Your task to perform on an android device: Go to CNN.com Image 0: 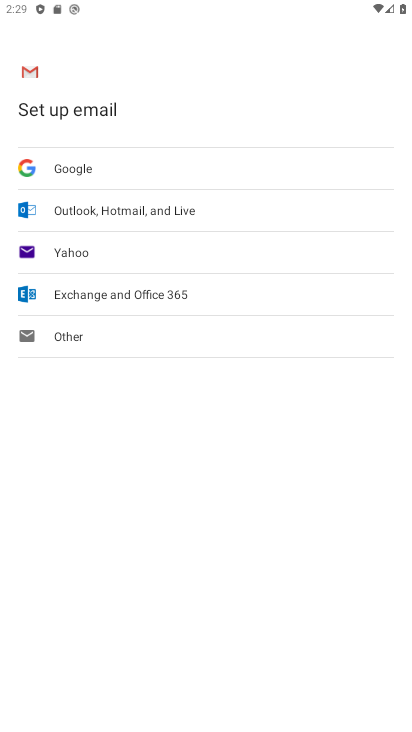
Step 0: press home button
Your task to perform on an android device: Go to CNN.com Image 1: 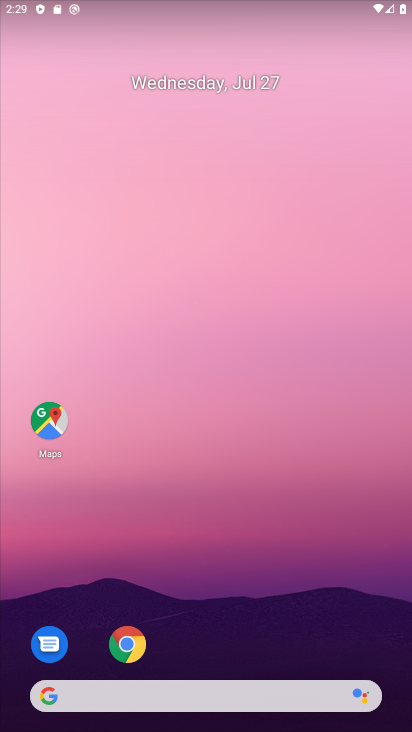
Step 1: click (125, 635)
Your task to perform on an android device: Go to CNN.com Image 2: 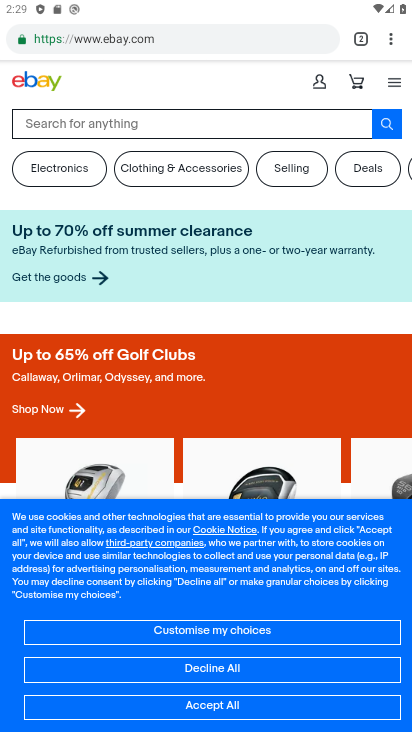
Step 2: click (170, 37)
Your task to perform on an android device: Go to CNN.com Image 3: 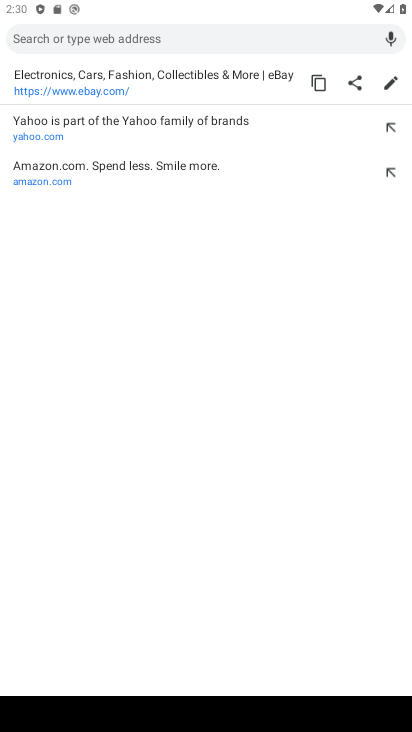
Step 3: type "CNN.com"
Your task to perform on an android device: Go to CNN.com Image 4: 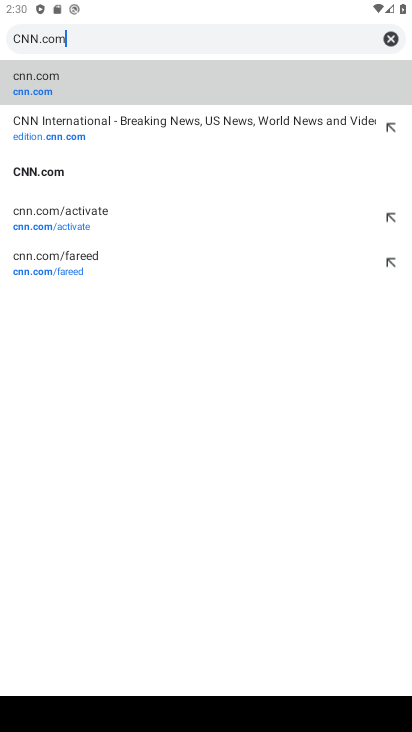
Step 4: click (90, 120)
Your task to perform on an android device: Go to CNN.com Image 5: 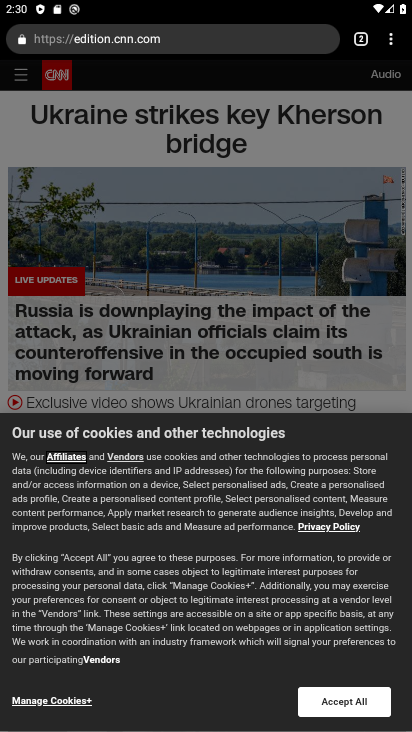
Step 5: task complete